Your task to perform on an android device: Play the last video I watched on Youtube Image 0: 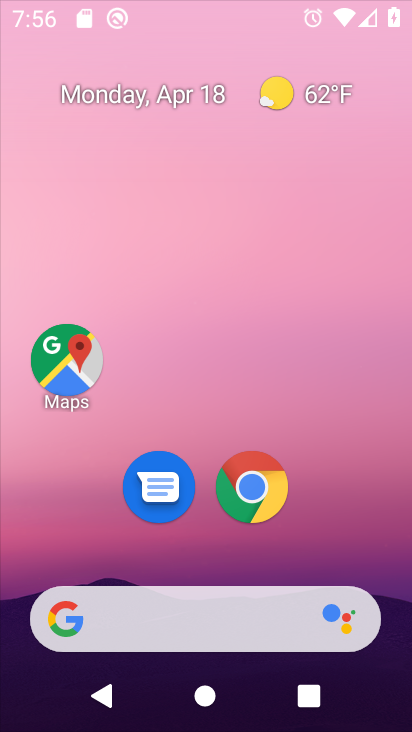
Step 0: press home button
Your task to perform on an android device: Play the last video I watched on Youtube Image 1: 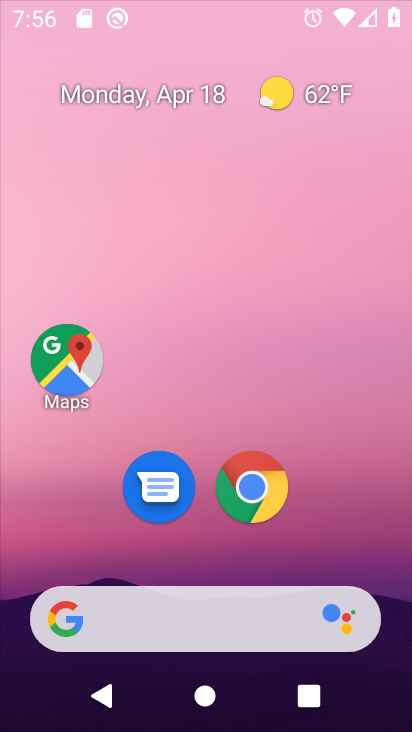
Step 1: click (253, 481)
Your task to perform on an android device: Play the last video I watched on Youtube Image 2: 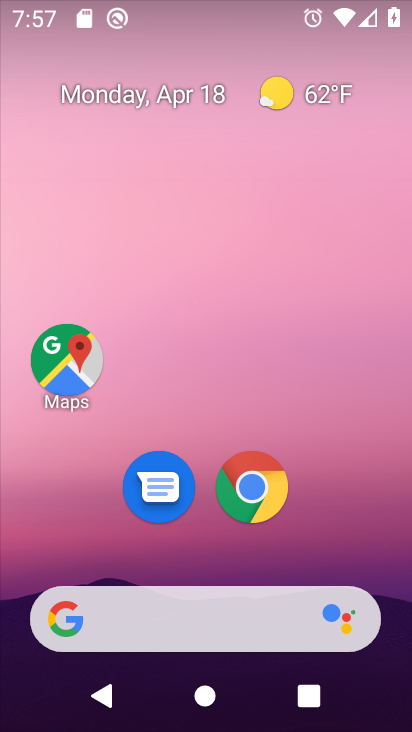
Step 2: drag from (216, 555) to (231, 96)
Your task to perform on an android device: Play the last video I watched on Youtube Image 3: 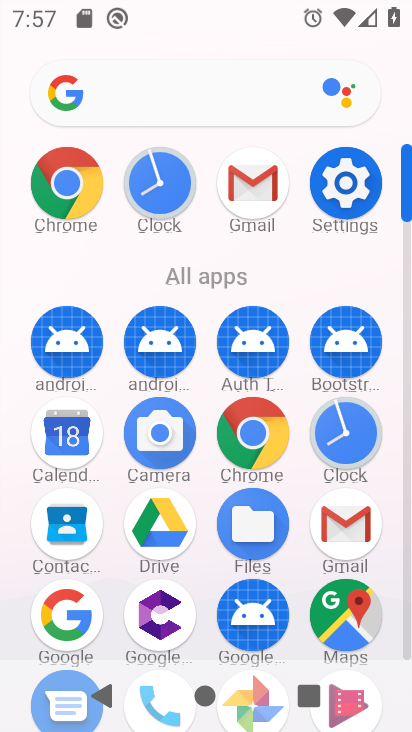
Step 3: drag from (205, 576) to (231, 142)
Your task to perform on an android device: Play the last video I watched on Youtube Image 4: 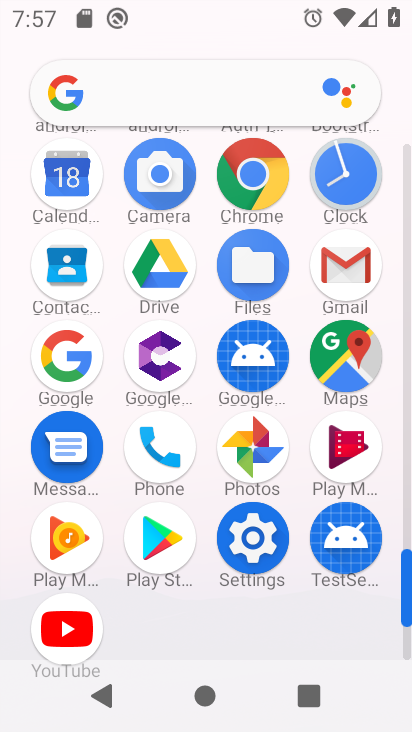
Step 4: click (64, 623)
Your task to perform on an android device: Play the last video I watched on Youtube Image 5: 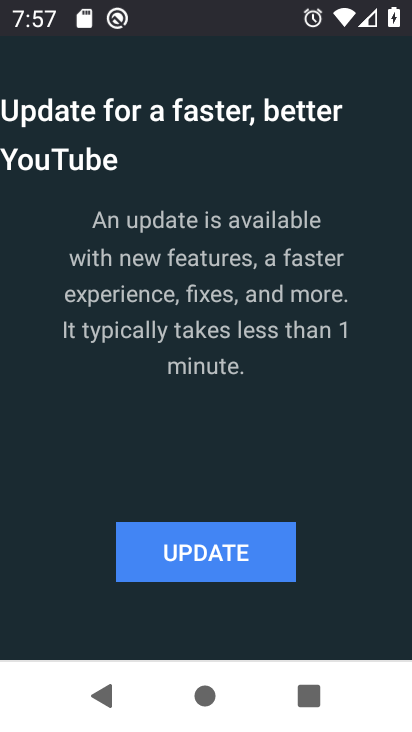
Step 5: click (213, 549)
Your task to perform on an android device: Play the last video I watched on Youtube Image 6: 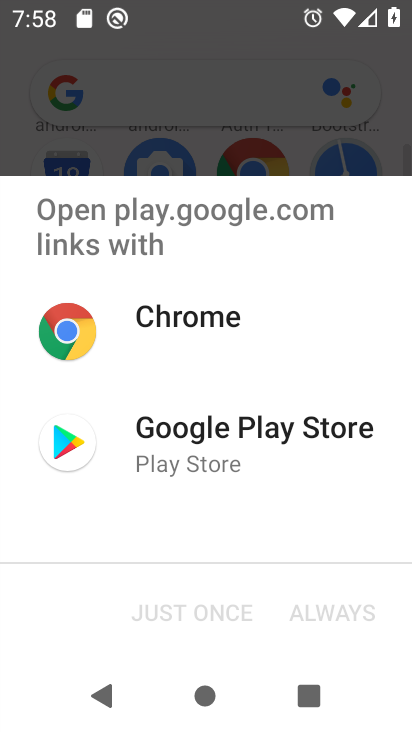
Step 6: click (148, 445)
Your task to perform on an android device: Play the last video I watched on Youtube Image 7: 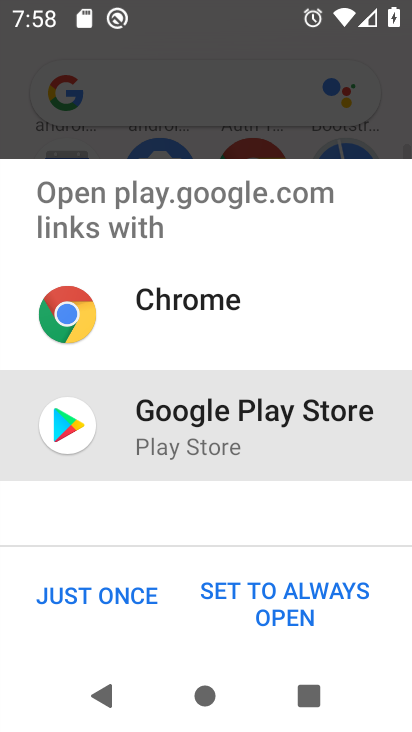
Step 7: click (112, 595)
Your task to perform on an android device: Play the last video I watched on Youtube Image 8: 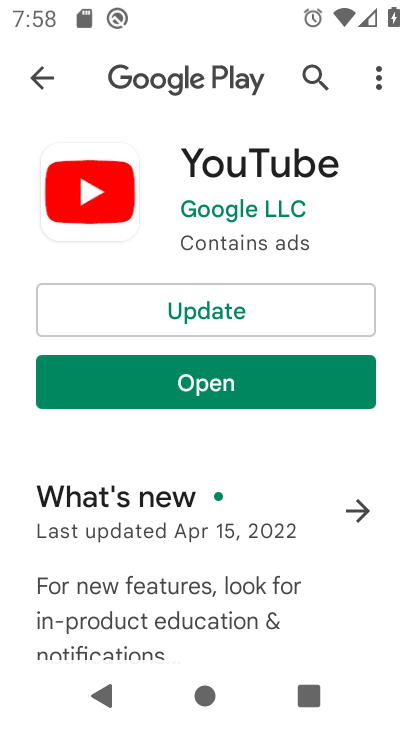
Step 8: click (207, 315)
Your task to perform on an android device: Play the last video I watched on Youtube Image 9: 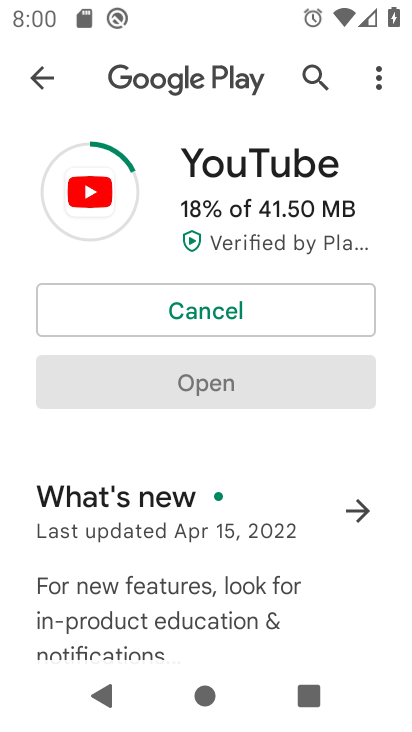
Step 9: click (196, 317)
Your task to perform on an android device: Play the last video I watched on Youtube Image 10: 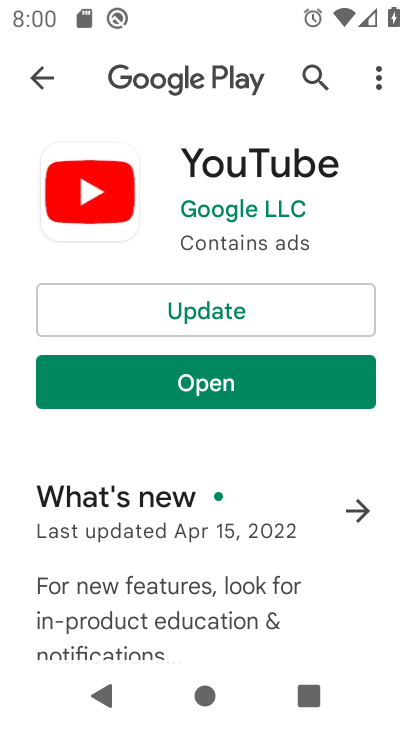
Step 10: click (204, 320)
Your task to perform on an android device: Play the last video I watched on Youtube Image 11: 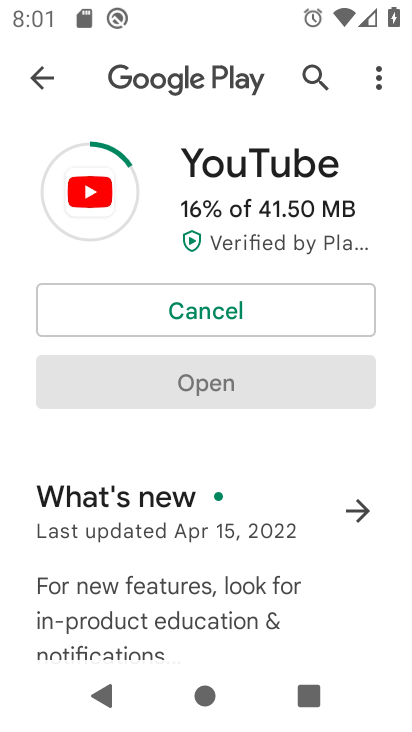
Step 11: task complete